Your task to perform on an android device: toggle sleep mode Image 0: 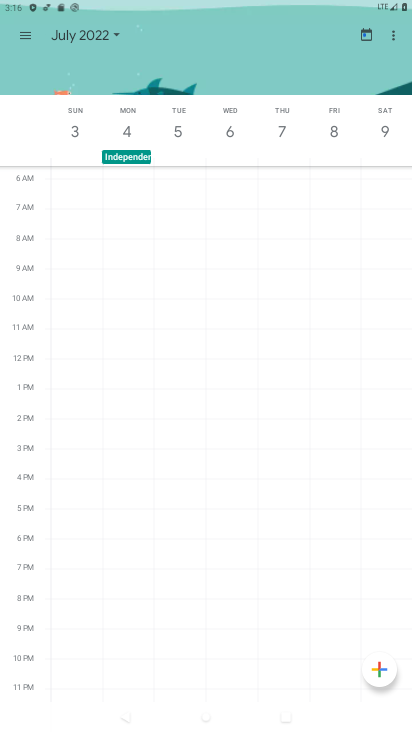
Step 0: press home button
Your task to perform on an android device: toggle sleep mode Image 1: 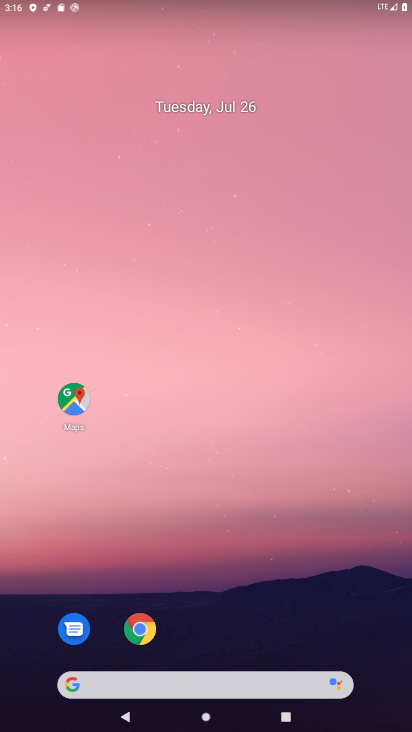
Step 1: drag from (230, 705) to (230, 227)
Your task to perform on an android device: toggle sleep mode Image 2: 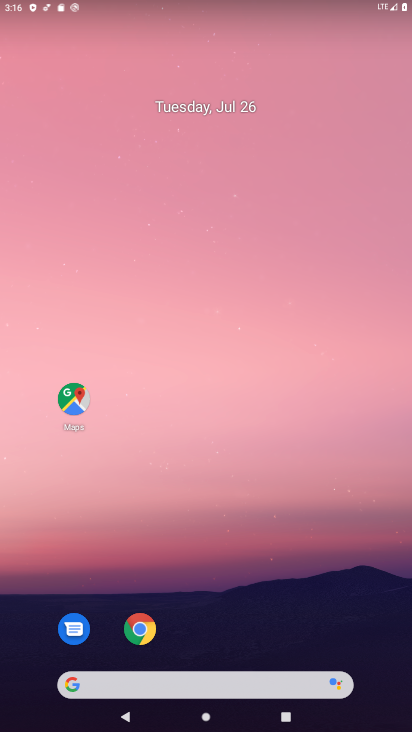
Step 2: drag from (223, 724) to (220, 278)
Your task to perform on an android device: toggle sleep mode Image 3: 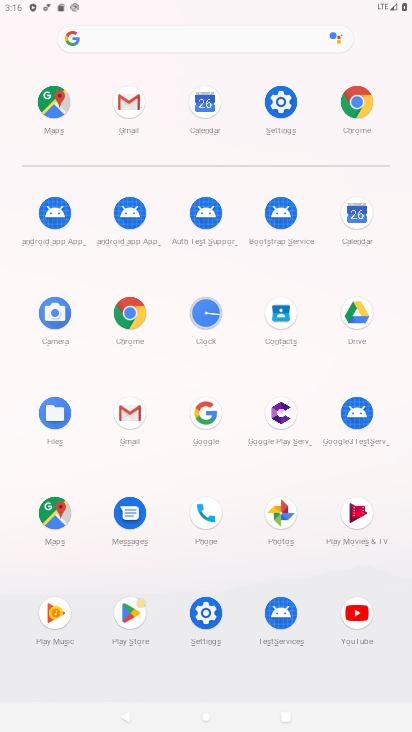
Step 3: click (277, 101)
Your task to perform on an android device: toggle sleep mode Image 4: 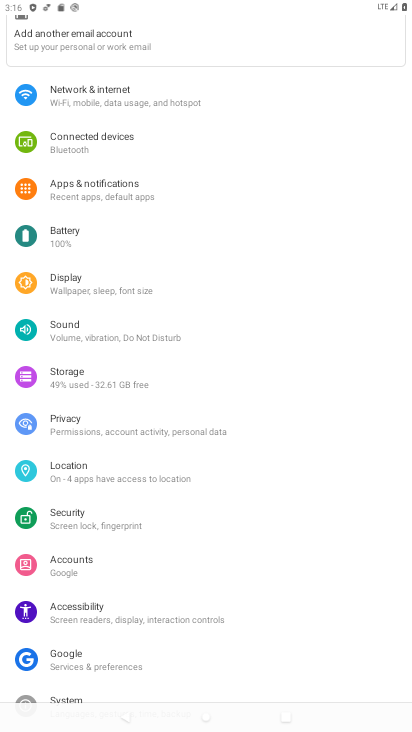
Step 4: click (107, 289)
Your task to perform on an android device: toggle sleep mode Image 5: 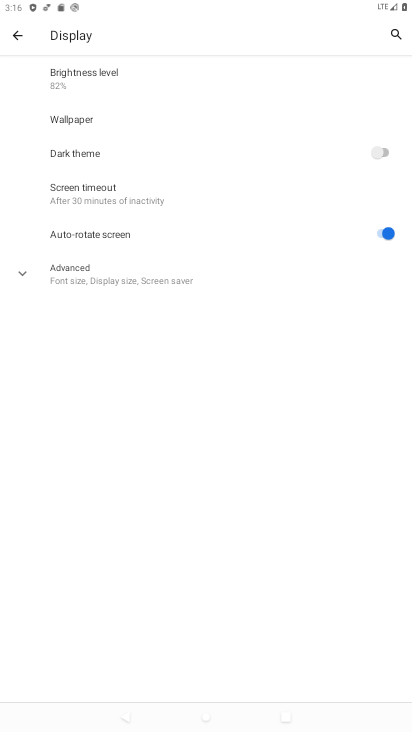
Step 5: task complete